Your task to perform on an android device: uninstall "Fetch Rewards" Image 0: 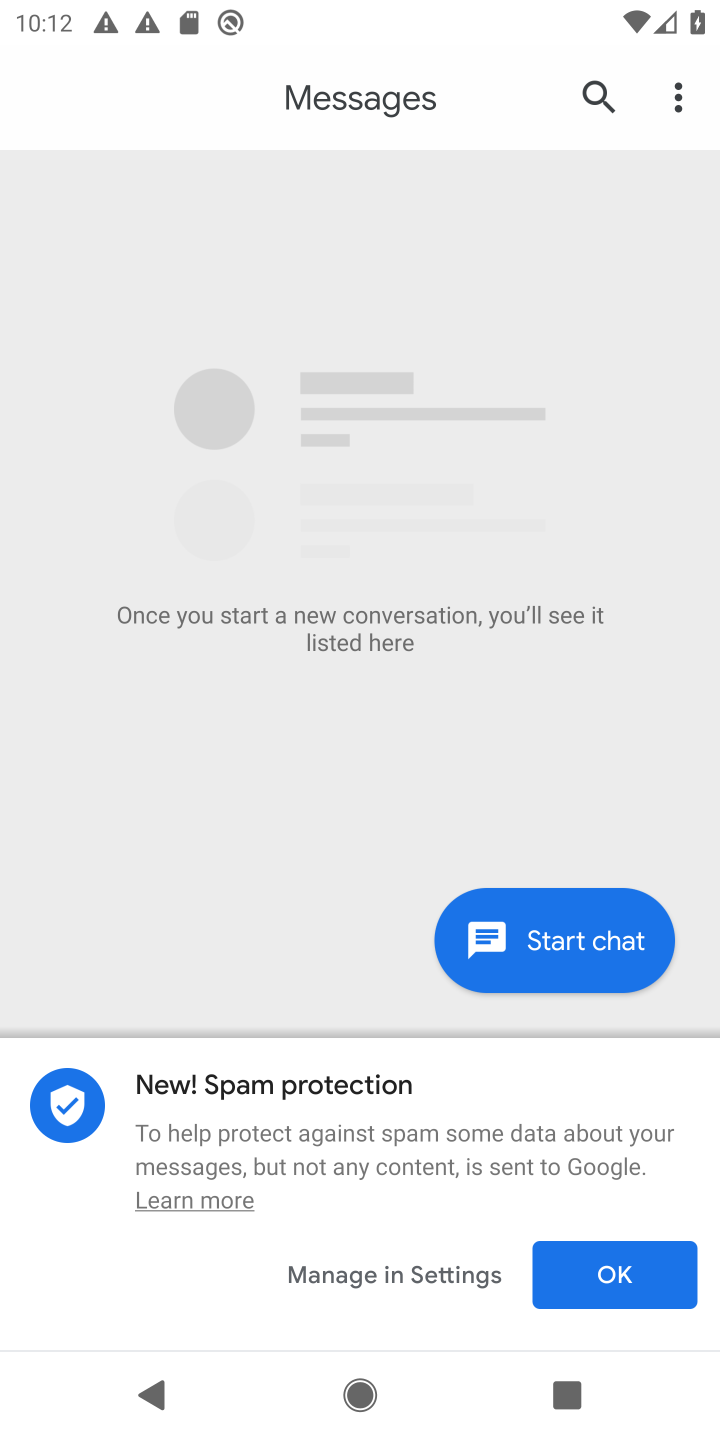
Step 0: press home button
Your task to perform on an android device: uninstall "Fetch Rewards" Image 1: 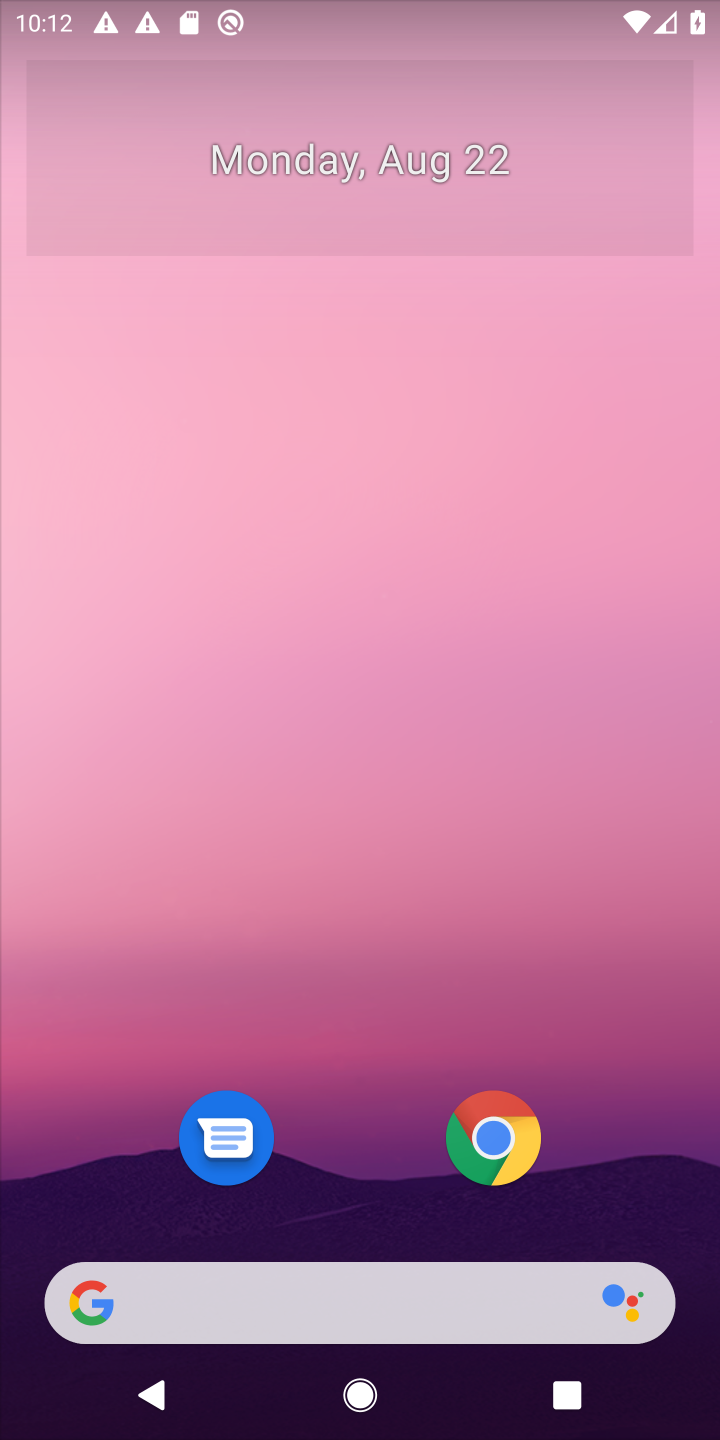
Step 1: drag from (594, 1026) to (601, 150)
Your task to perform on an android device: uninstall "Fetch Rewards" Image 2: 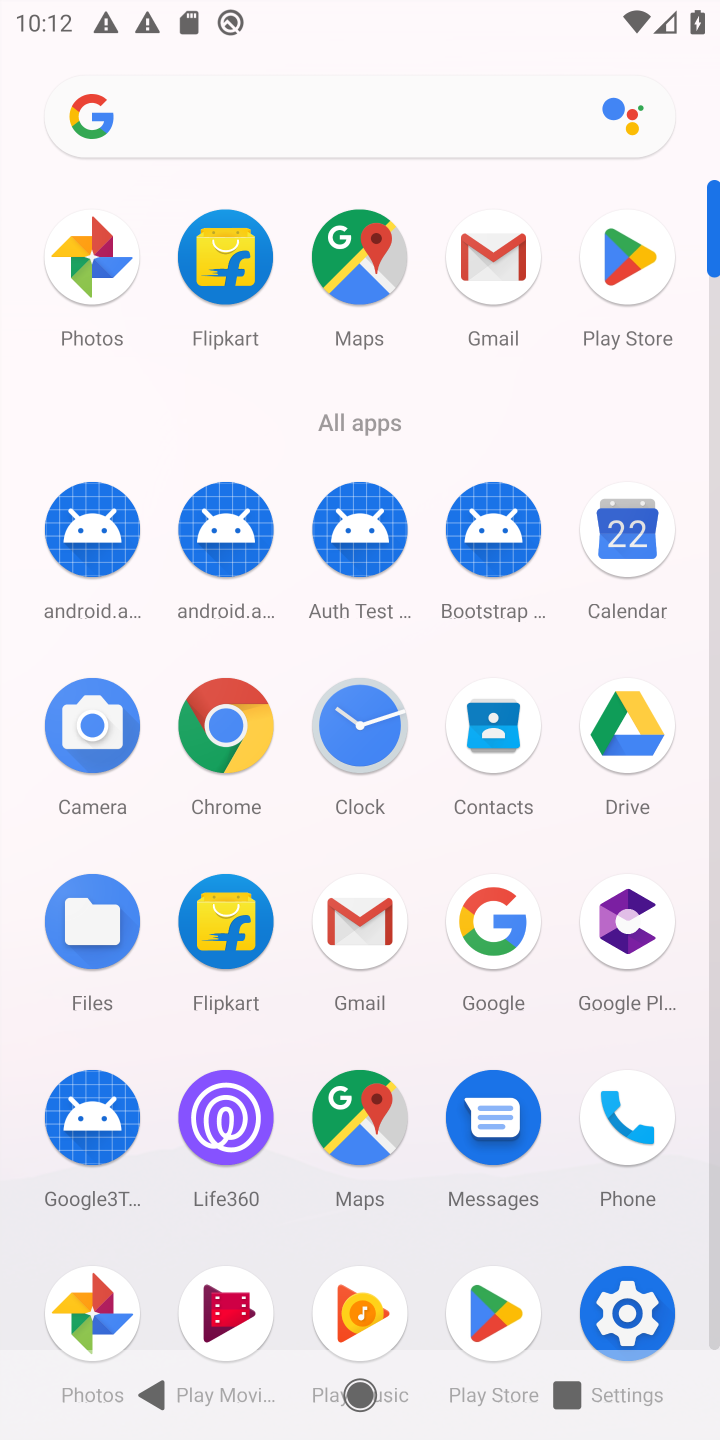
Step 2: click (619, 255)
Your task to perform on an android device: uninstall "Fetch Rewards" Image 3: 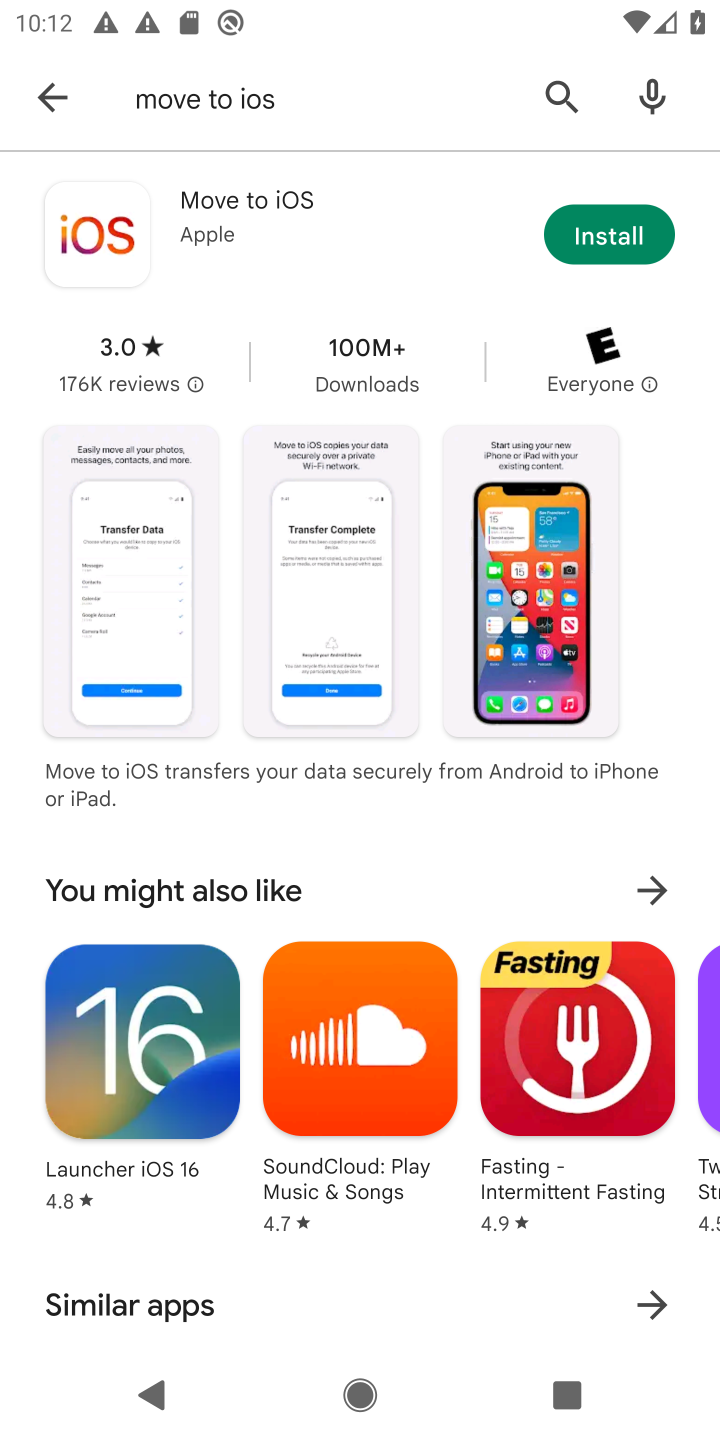
Step 3: press back button
Your task to perform on an android device: uninstall "Fetch Rewards" Image 4: 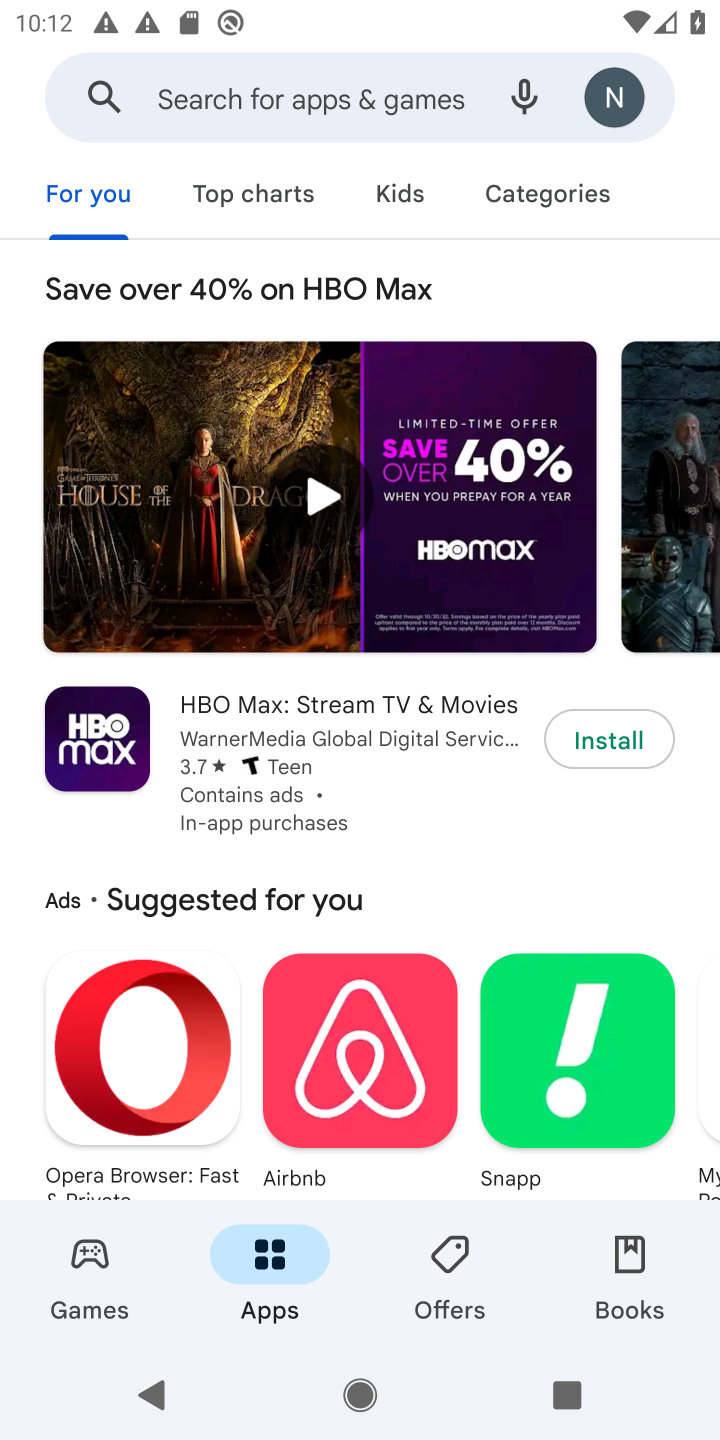
Step 4: click (293, 102)
Your task to perform on an android device: uninstall "Fetch Rewards" Image 5: 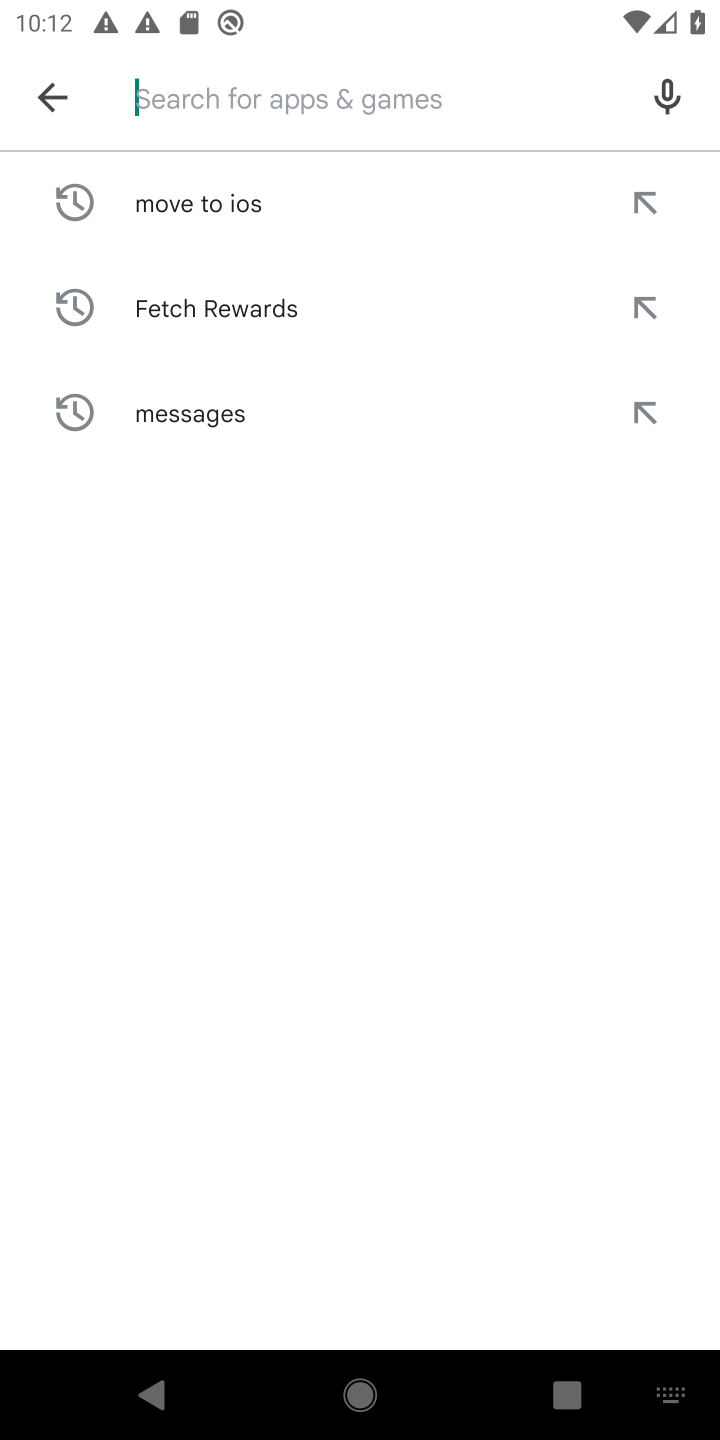
Step 5: press enter
Your task to perform on an android device: uninstall "Fetch Rewards" Image 6: 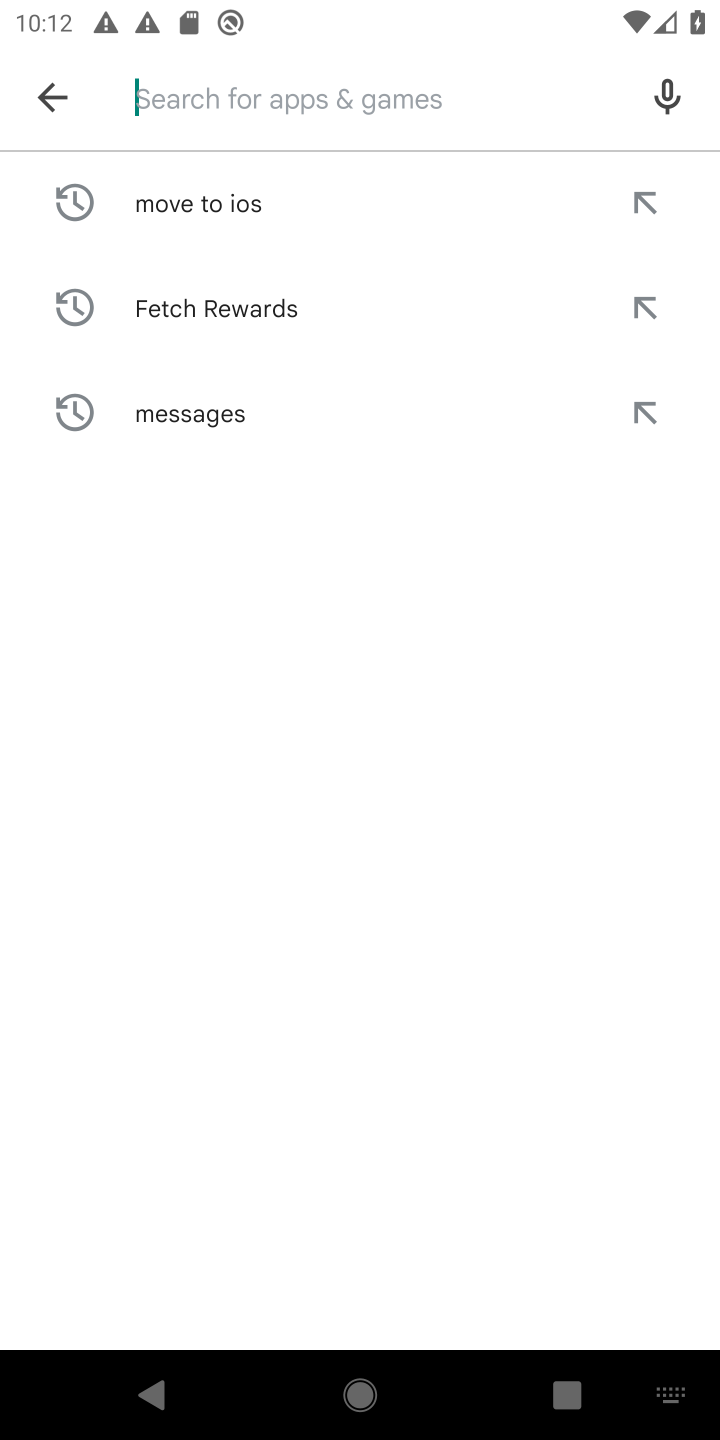
Step 6: type "Fetch Rewards"
Your task to perform on an android device: uninstall "Fetch Rewards" Image 7: 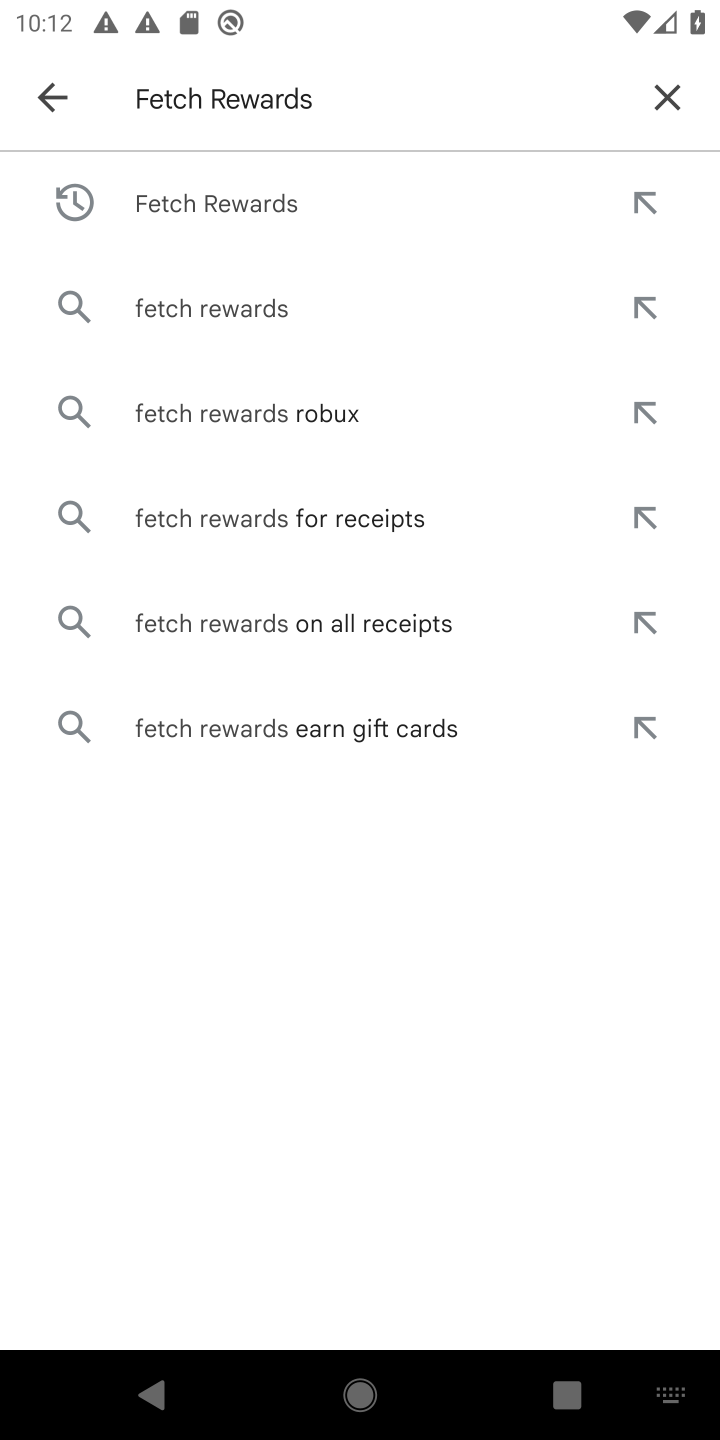
Step 7: click (238, 212)
Your task to perform on an android device: uninstall "Fetch Rewards" Image 8: 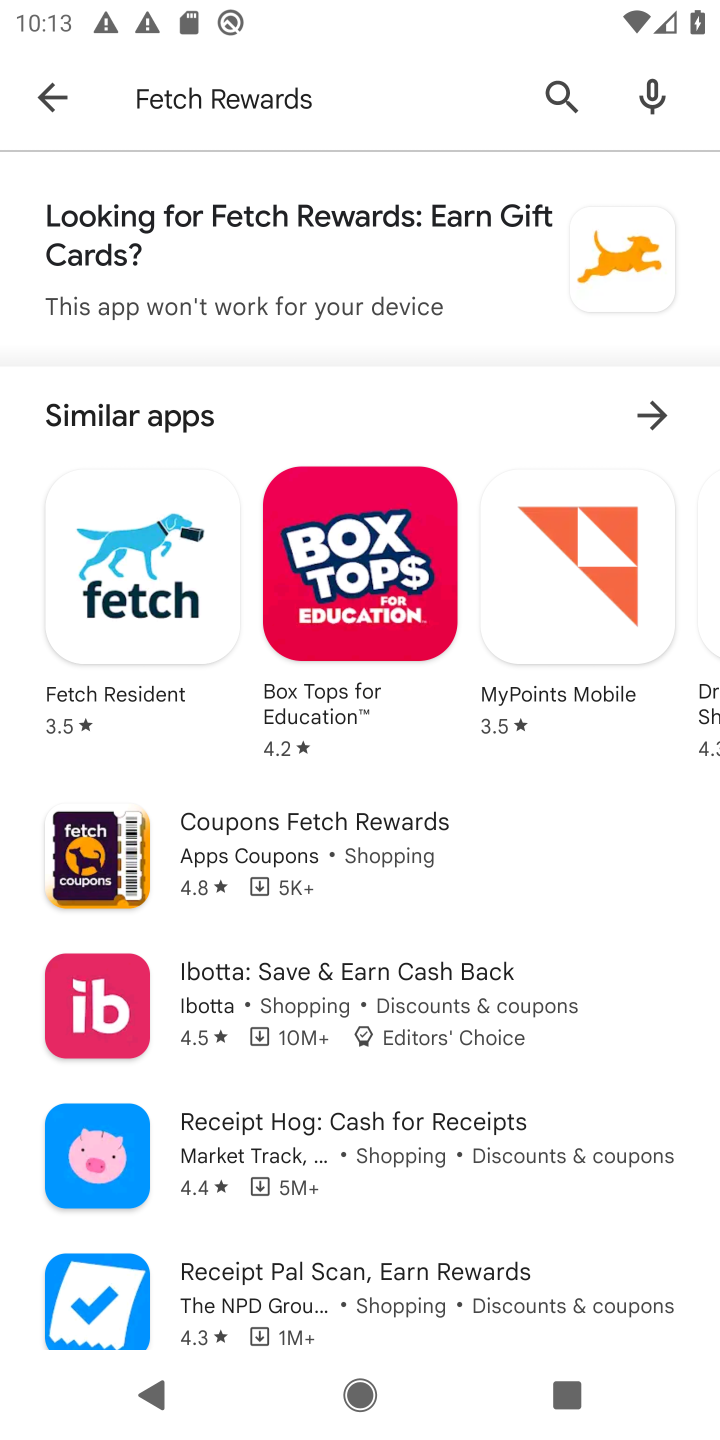
Step 8: task complete